Your task to perform on an android device: Toggle the flashlight Image 0: 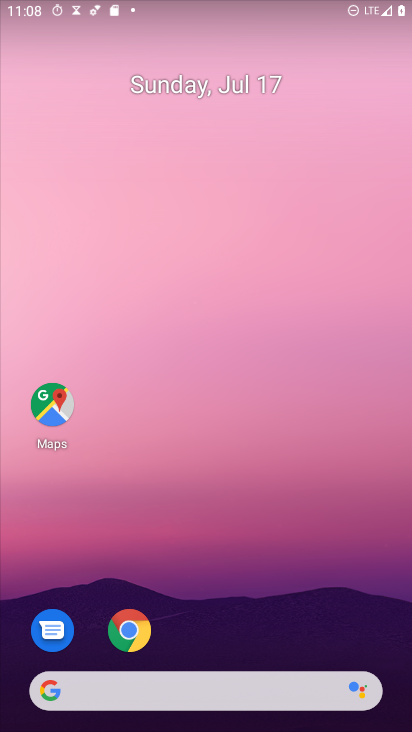
Step 0: drag from (231, 2) to (290, 504)
Your task to perform on an android device: Toggle the flashlight Image 1: 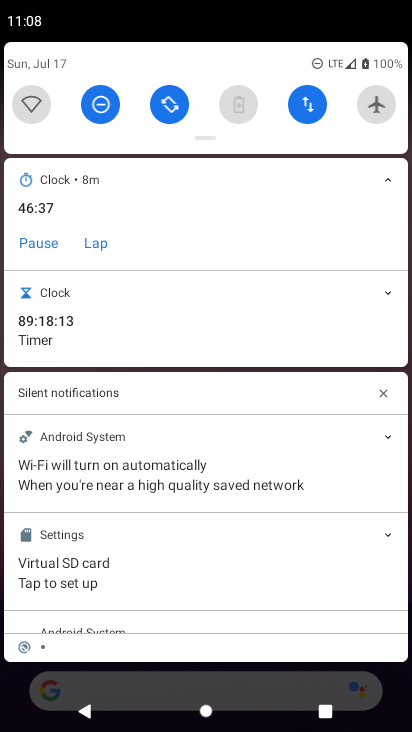
Step 1: task complete